Your task to perform on an android device: Go to sound settings Image 0: 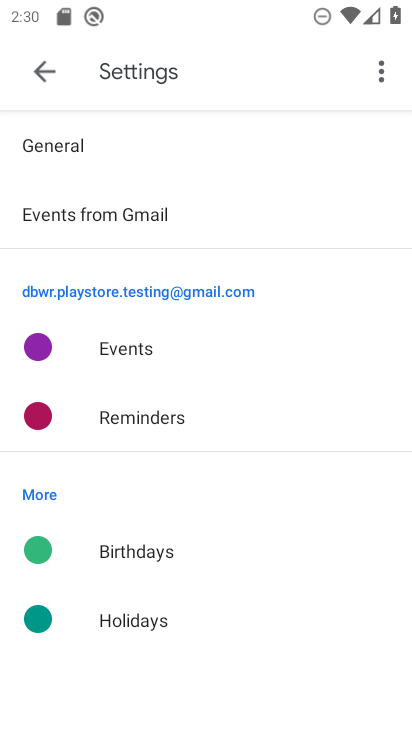
Step 0: drag from (175, 607) to (335, 254)
Your task to perform on an android device: Go to sound settings Image 1: 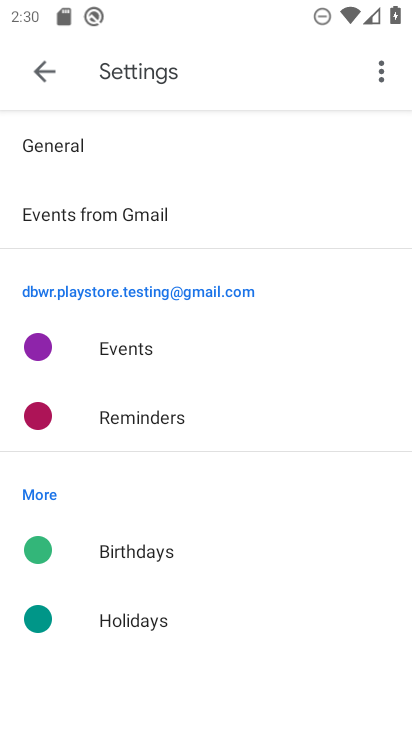
Step 1: press home button
Your task to perform on an android device: Go to sound settings Image 2: 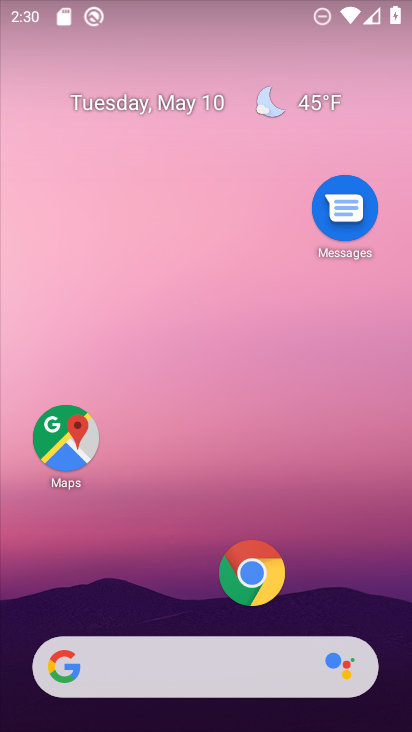
Step 2: drag from (211, 487) to (280, 135)
Your task to perform on an android device: Go to sound settings Image 3: 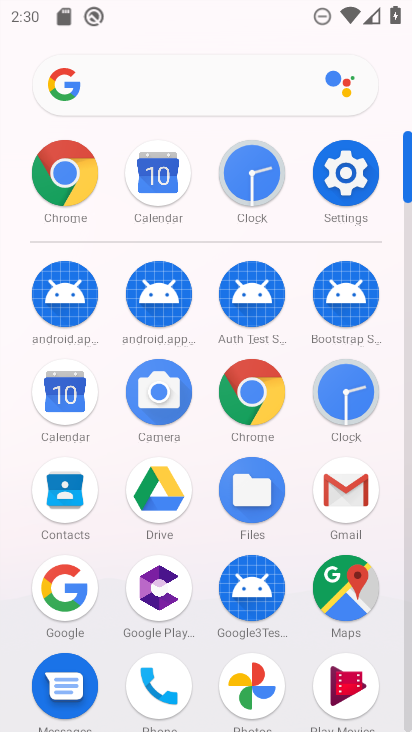
Step 3: click (335, 178)
Your task to perform on an android device: Go to sound settings Image 4: 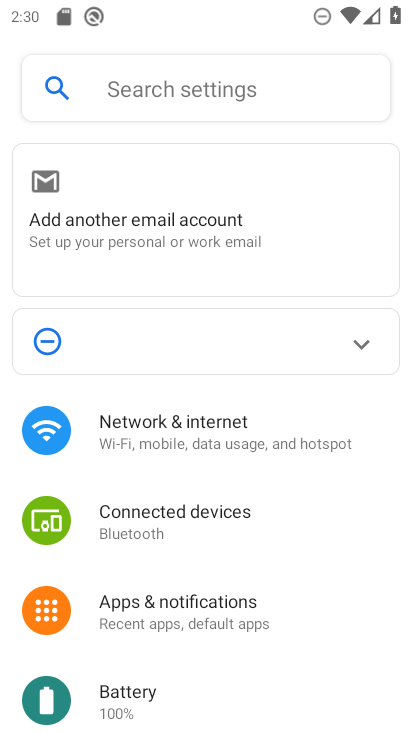
Step 4: drag from (182, 589) to (290, 31)
Your task to perform on an android device: Go to sound settings Image 5: 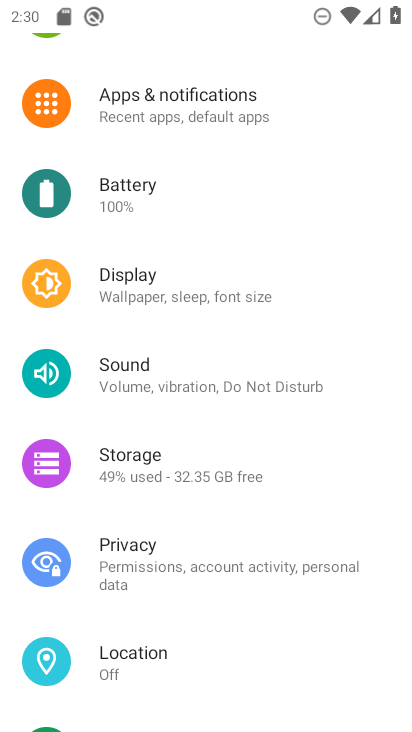
Step 5: drag from (176, 515) to (228, 189)
Your task to perform on an android device: Go to sound settings Image 6: 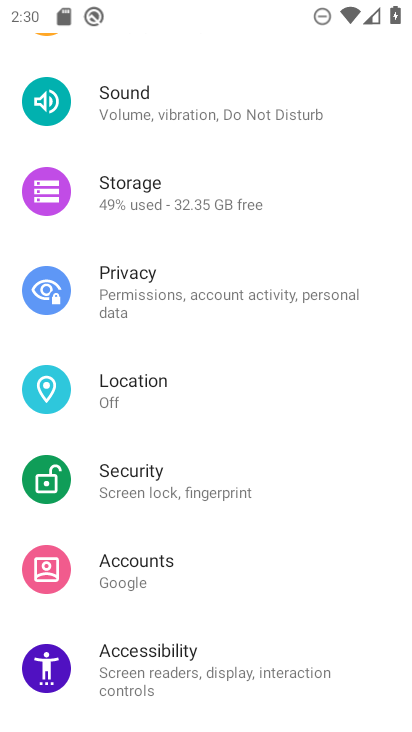
Step 6: click (153, 101)
Your task to perform on an android device: Go to sound settings Image 7: 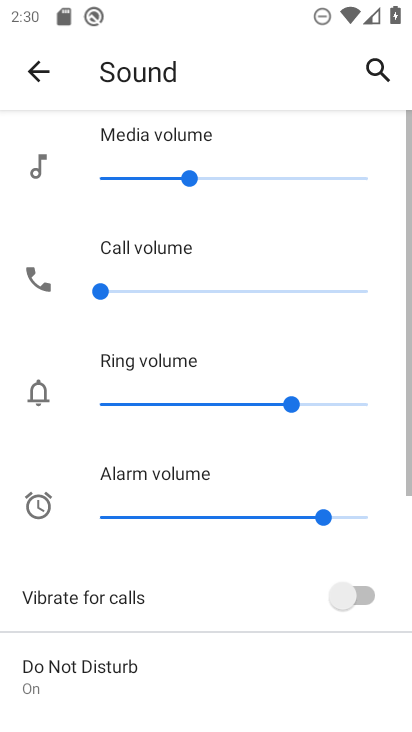
Step 7: task complete